Your task to perform on an android device: turn on wifi Image 0: 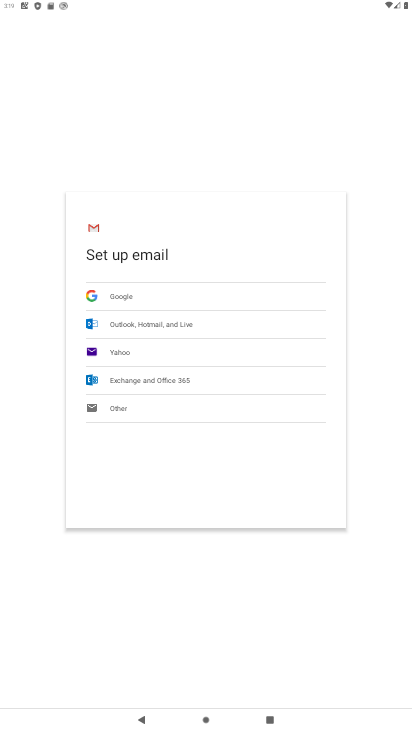
Step 0: press home button
Your task to perform on an android device: turn on wifi Image 1: 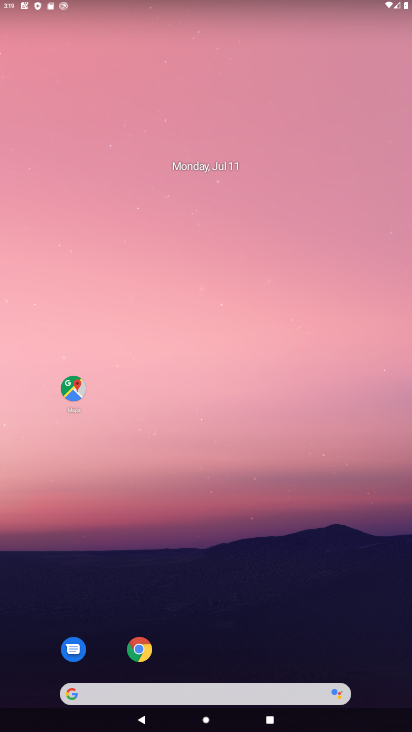
Step 1: drag from (204, 670) to (250, 66)
Your task to perform on an android device: turn on wifi Image 2: 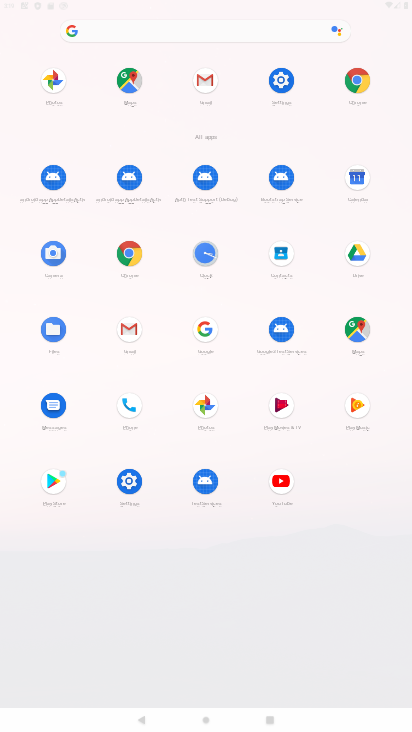
Step 2: click (123, 490)
Your task to perform on an android device: turn on wifi Image 3: 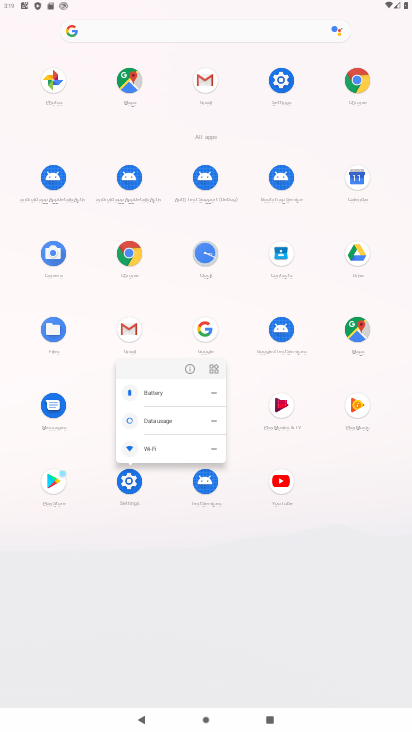
Step 3: click (131, 482)
Your task to perform on an android device: turn on wifi Image 4: 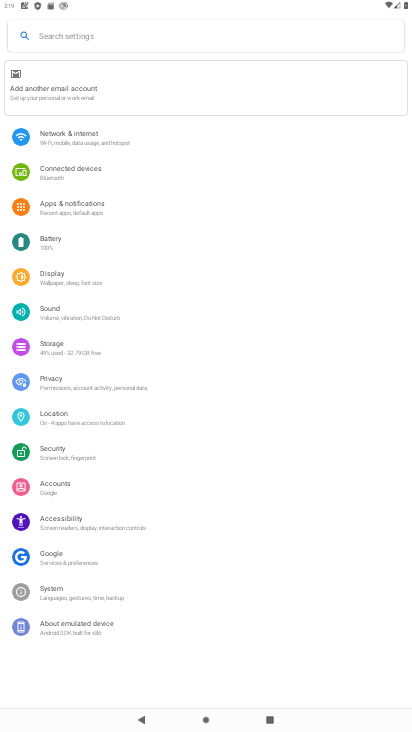
Step 4: click (130, 141)
Your task to perform on an android device: turn on wifi Image 5: 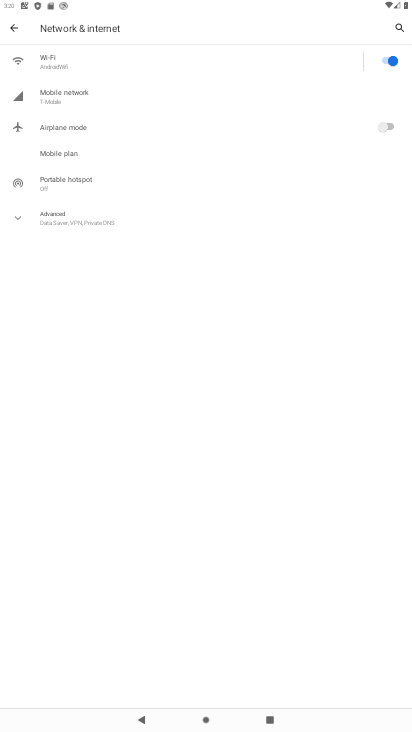
Step 5: click (196, 67)
Your task to perform on an android device: turn on wifi Image 6: 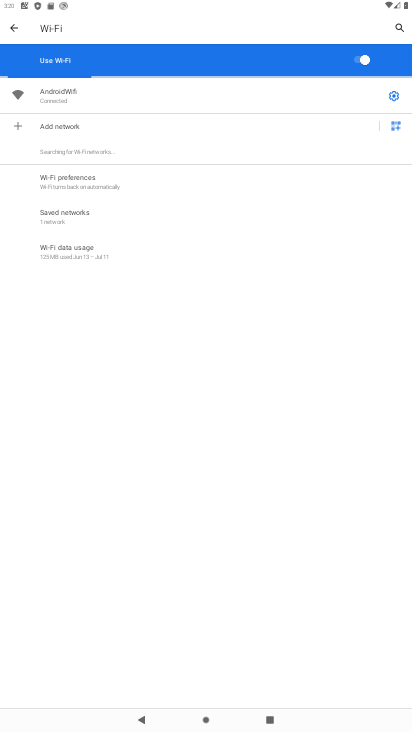
Step 6: task complete